Your task to perform on an android device: Search for Italian restaurants on Maps Image 0: 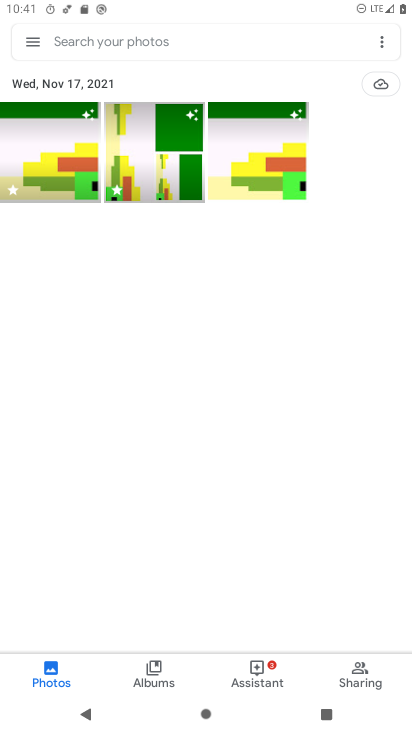
Step 0: press home button
Your task to perform on an android device: Search for Italian restaurants on Maps Image 1: 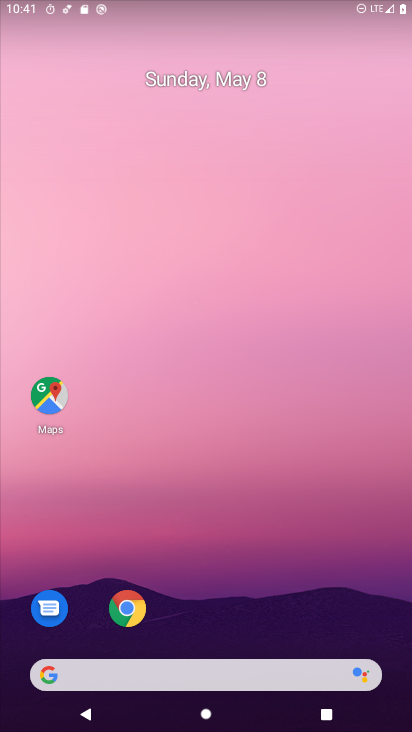
Step 1: click (35, 408)
Your task to perform on an android device: Search for Italian restaurants on Maps Image 2: 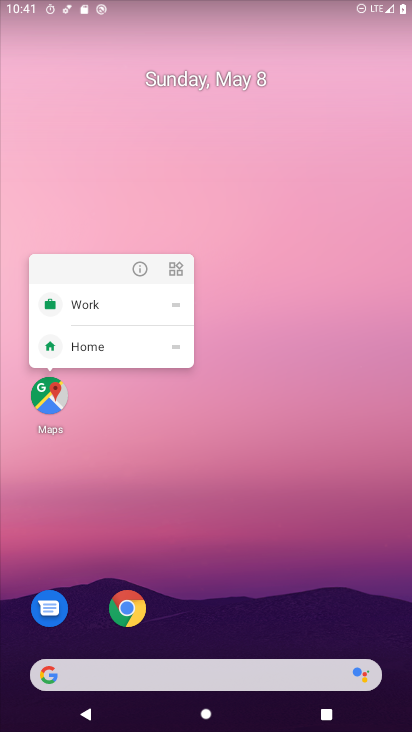
Step 2: click (36, 397)
Your task to perform on an android device: Search for Italian restaurants on Maps Image 3: 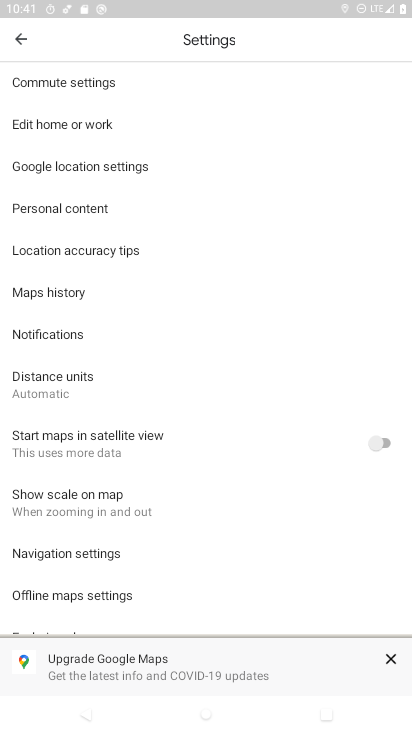
Step 3: click (25, 43)
Your task to perform on an android device: Search for Italian restaurants on Maps Image 4: 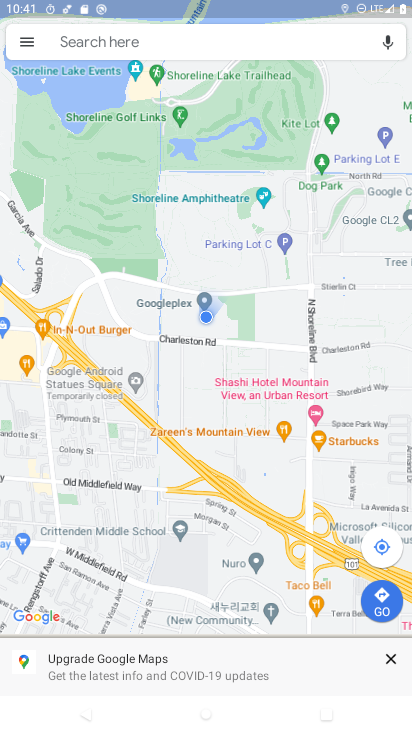
Step 4: click (96, 43)
Your task to perform on an android device: Search for Italian restaurants on Maps Image 5: 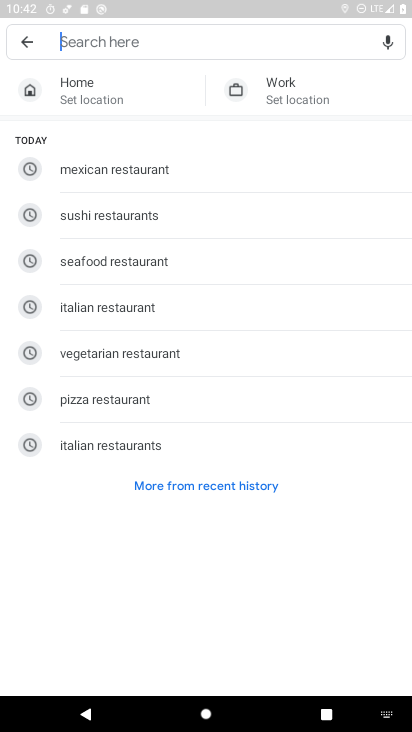
Step 5: type "italian restaurants"
Your task to perform on an android device: Search for Italian restaurants on Maps Image 6: 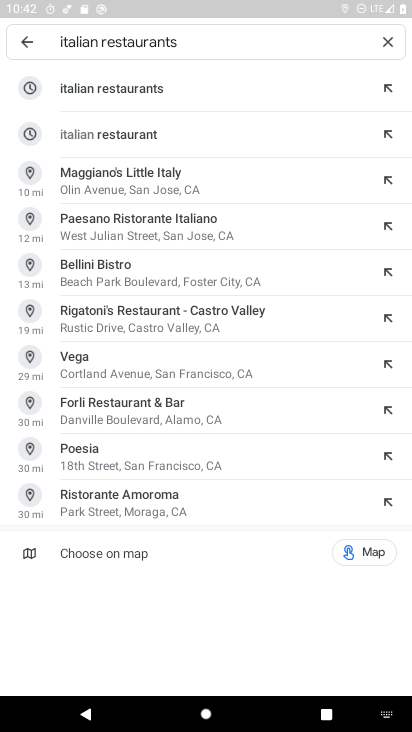
Step 6: click (109, 80)
Your task to perform on an android device: Search for Italian restaurants on Maps Image 7: 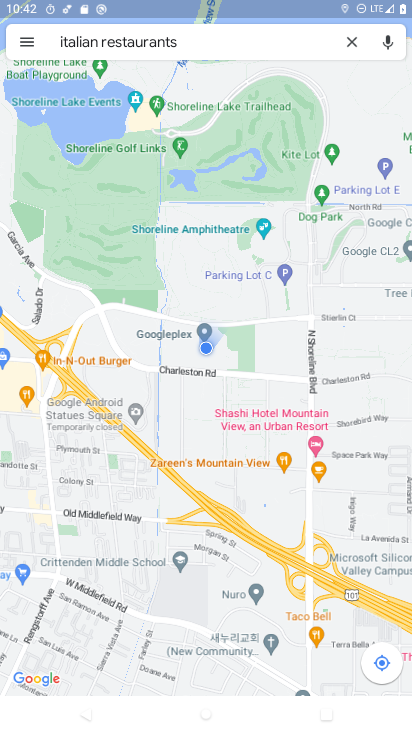
Step 7: task complete